Your task to perform on an android device: Go to Reddit.com Image 0: 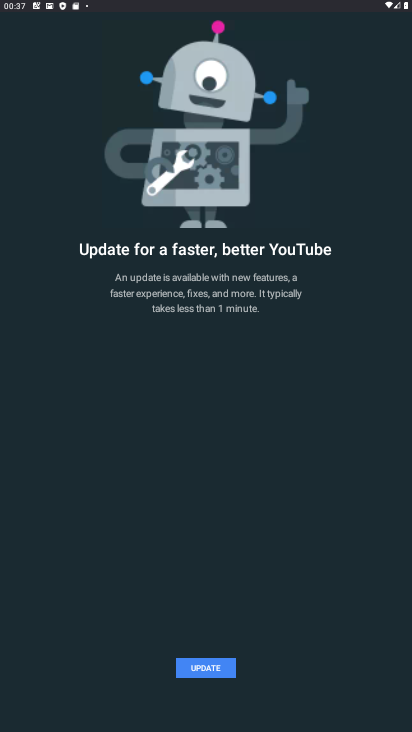
Step 0: press home button
Your task to perform on an android device: Go to Reddit.com Image 1: 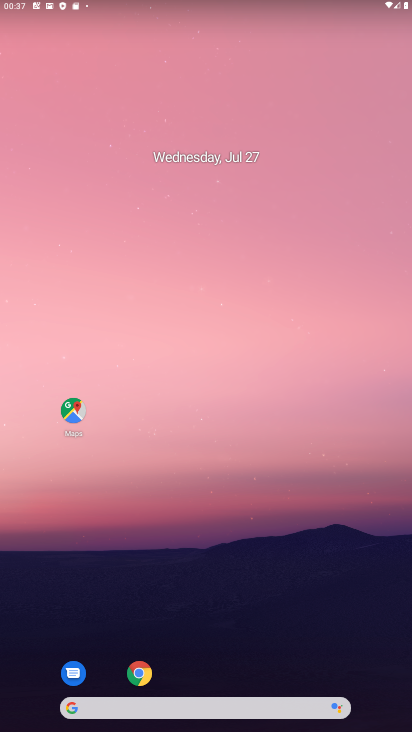
Step 1: drag from (171, 688) to (203, 268)
Your task to perform on an android device: Go to Reddit.com Image 2: 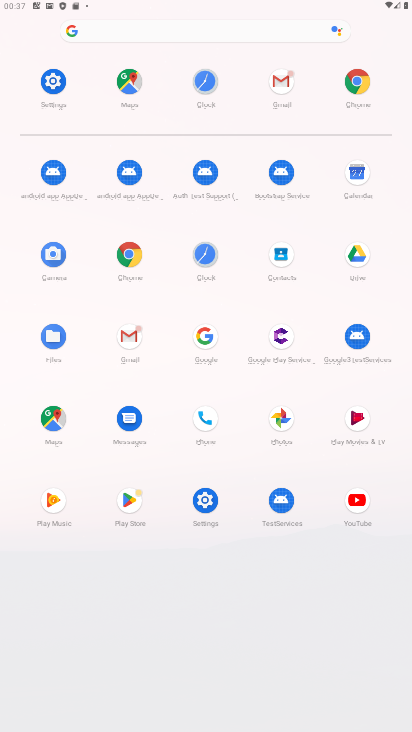
Step 2: click (124, 251)
Your task to perform on an android device: Go to Reddit.com Image 3: 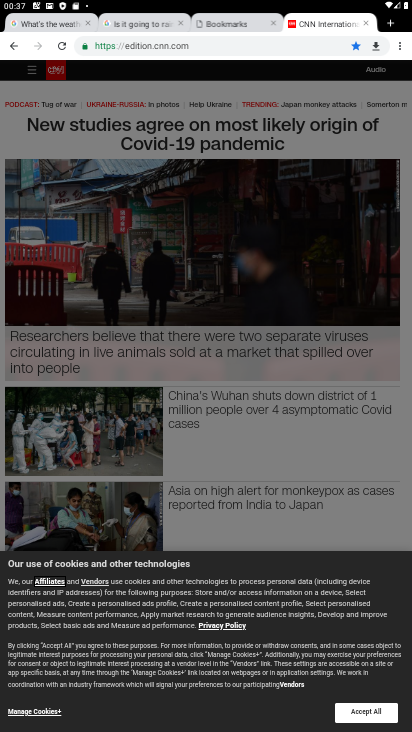
Step 3: click (390, 23)
Your task to perform on an android device: Go to Reddit.com Image 4: 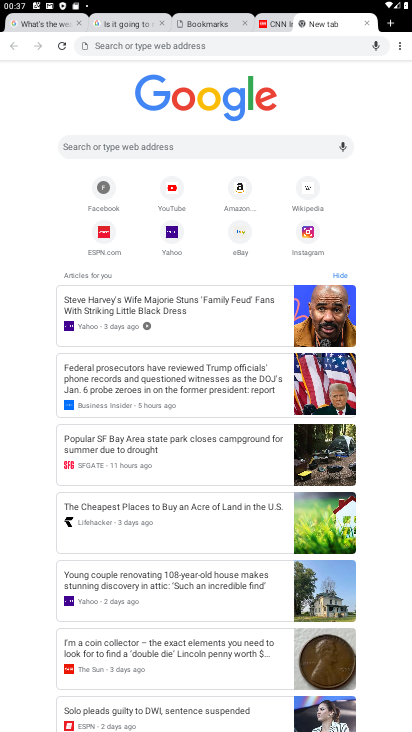
Step 4: click (229, 137)
Your task to perform on an android device: Go to Reddit.com Image 5: 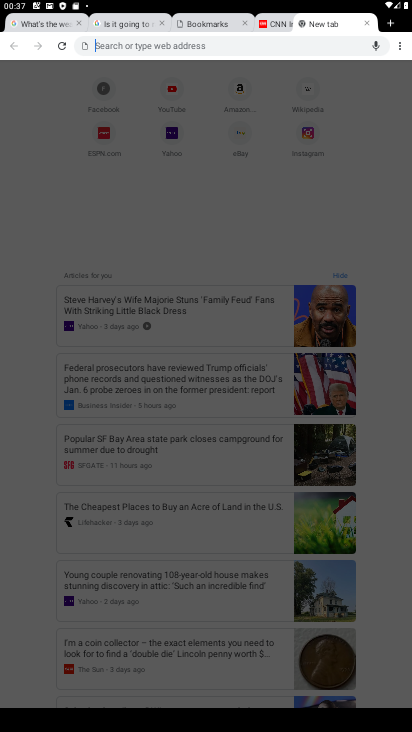
Step 5: type "Reddit.com "
Your task to perform on an android device: Go to Reddit.com Image 6: 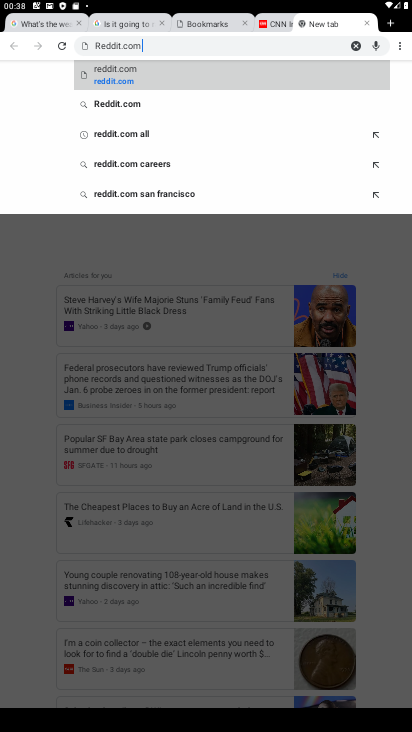
Step 6: click (131, 73)
Your task to perform on an android device: Go to Reddit.com Image 7: 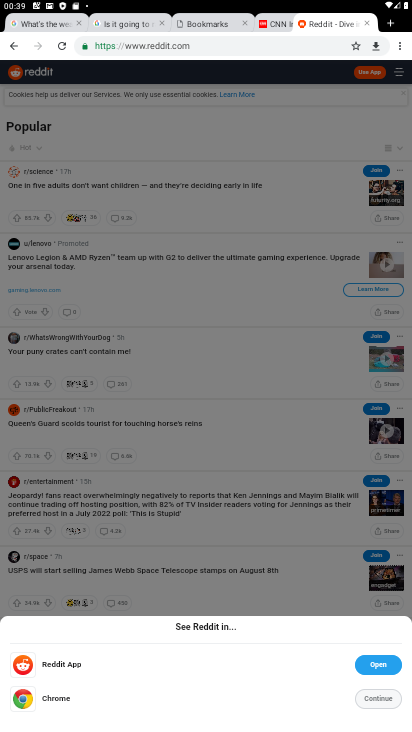
Step 7: task complete